Your task to perform on an android device: open chrome privacy settings Image 0: 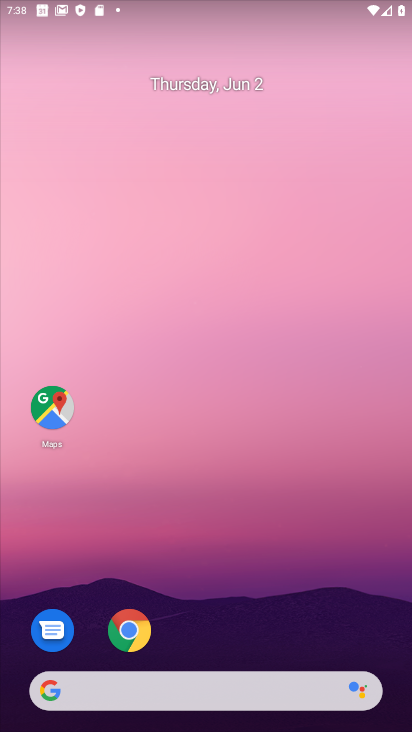
Step 0: click (119, 632)
Your task to perform on an android device: open chrome privacy settings Image 1: 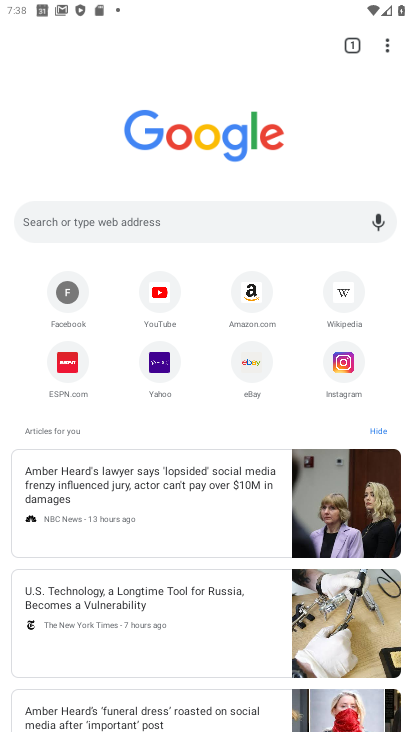
Step 1: click (386, 24)
Your task to perform on an android device: open chrome privacy settings Image 2: 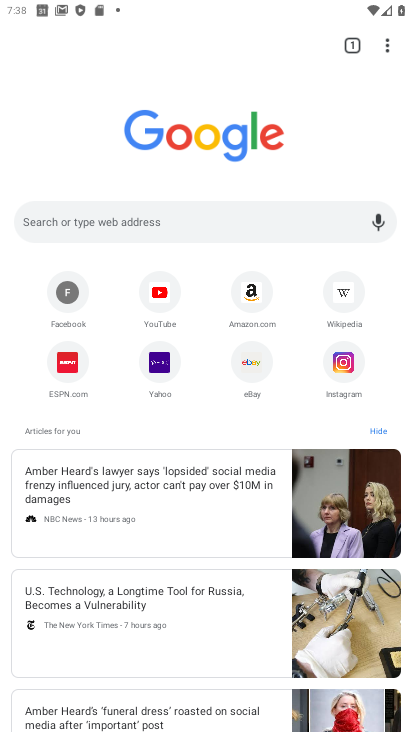
Step 2: click (388, 49)
Your task to perform on an android device: open chrome privacy settings Image 3: 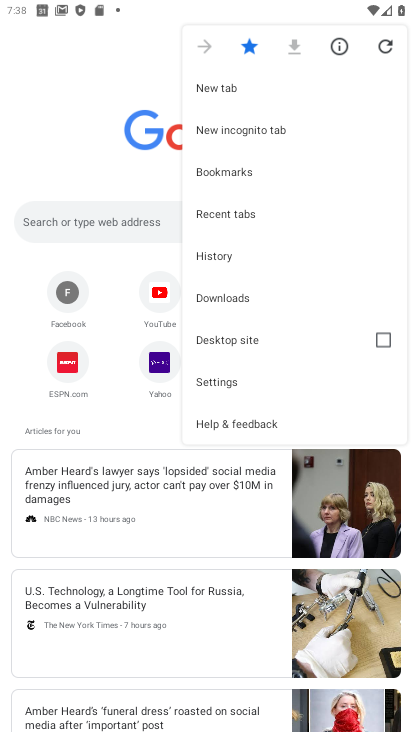
Step 3: click (220, 383)
Your task to perform on an android device: open chrome privacy settings Image 4: 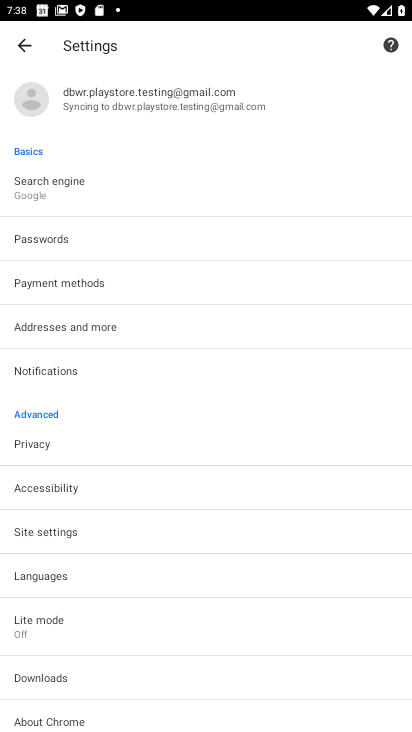
Step 4: click (63, 452)
Your task to perform on an android device: open chrome privacy settings Image 5: 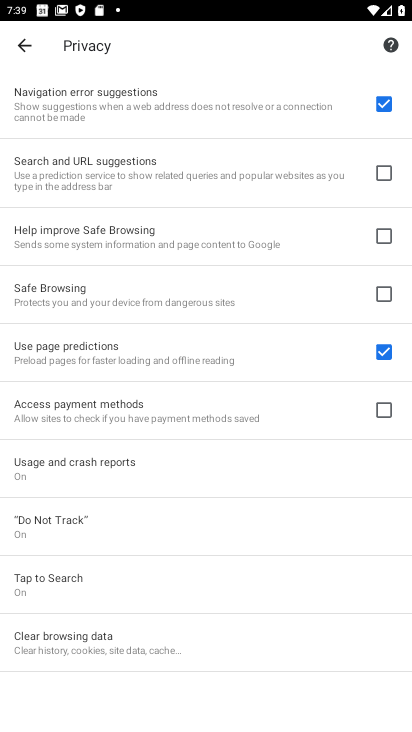
Step 5: task complete